Your task to perform on an android device: Open internet settings Image 0: 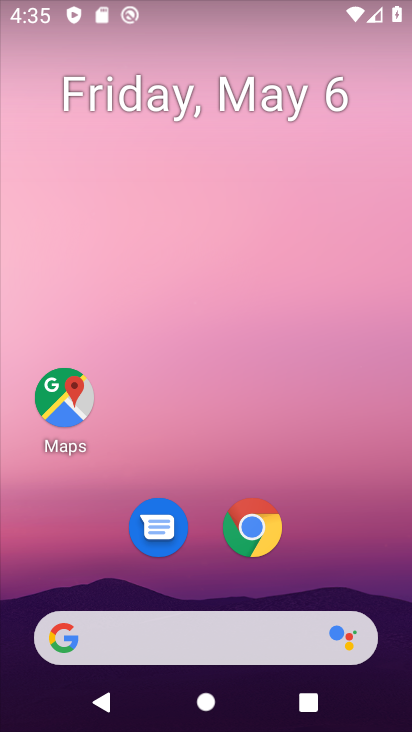
Step 0: drag from (211, 589) to (142, 70)
Your task to perform on an android device: Open internet settings Image 1: 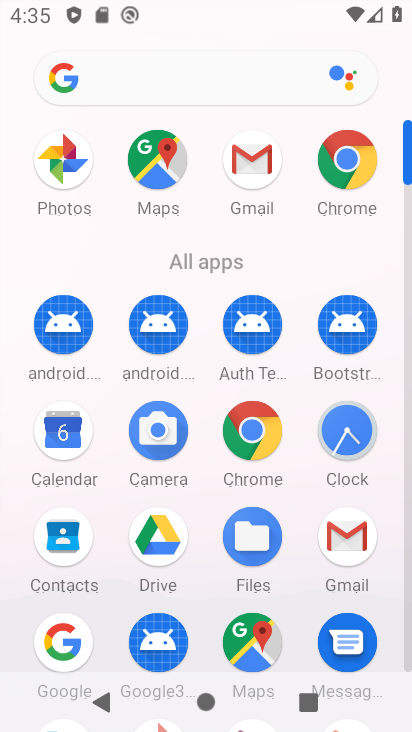
Step 1: drag from (211, 615) to (184, 14)
Your task to perform on an android device: Open internet settings Image 2: 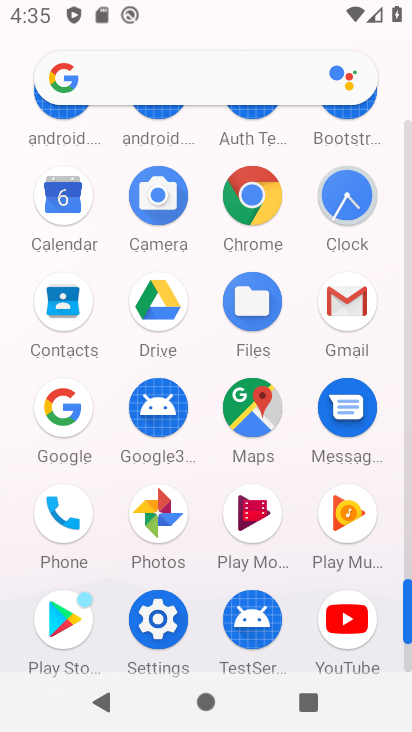
Step 2: click (162, 611)
Your task to perform on an android device: Open internet settings Image 3: 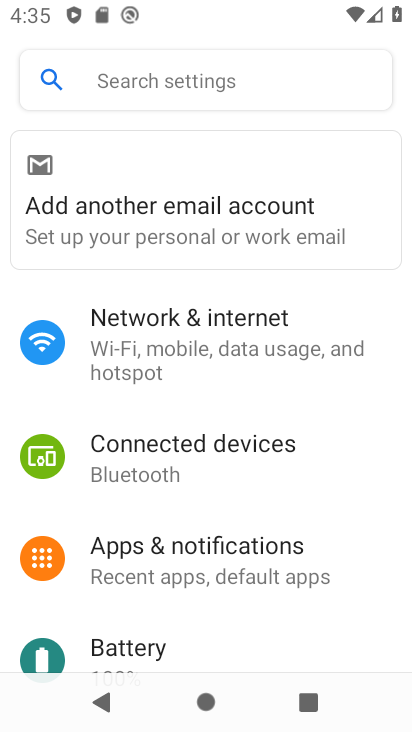
Step 3: click (173, 375)
Your task to perform on an android device: Open internet settings Image 4: 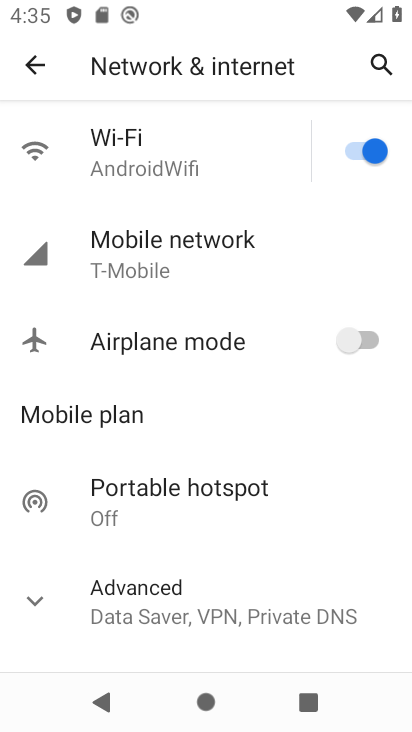
Step 4: click (153, 259)
Your task to perform on an android device: Open internet settings Image 5: 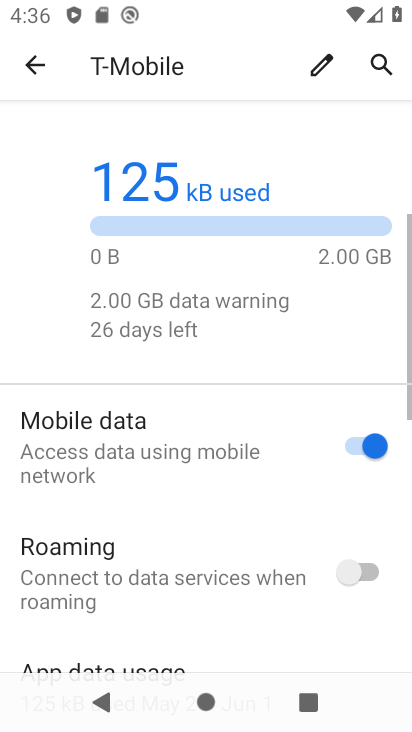
Step 5: task complete